Your task to perform on an android device: Open maps Image 0: 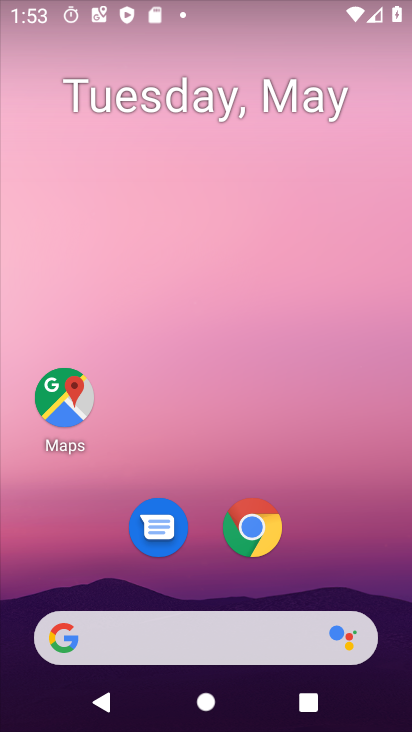
Step 0: press home button
Your task to perform on an android device: Open maps Image 1: 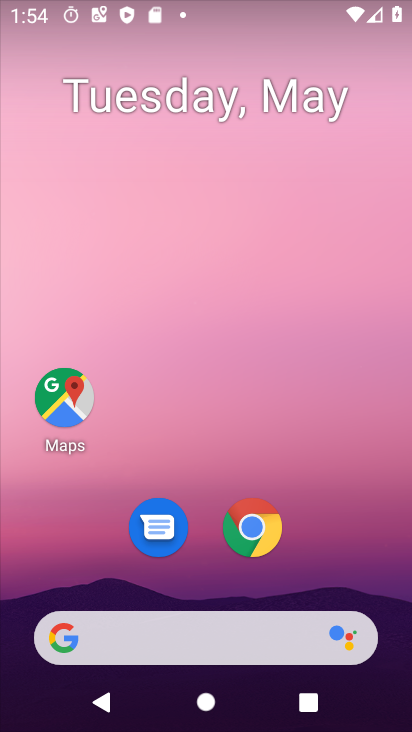
Step 1: drag from (269, 653) to (293, 209)
Your task to perform on an android device: Open maps Image 2: 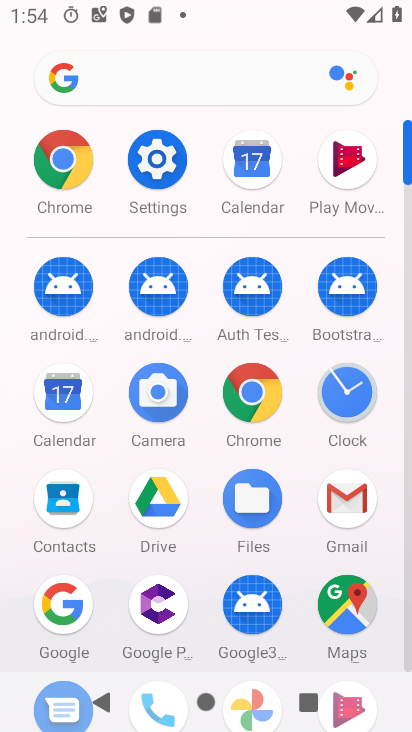
Step 2: click (349, 604)
Your task to perform on an android device: Open maps Image 3: 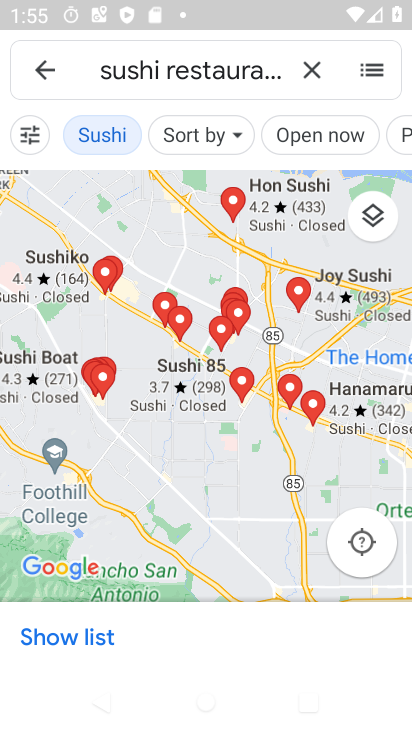
Step 3: click (140, 488)
Your task to perform on an android device: Open maps Image 4: 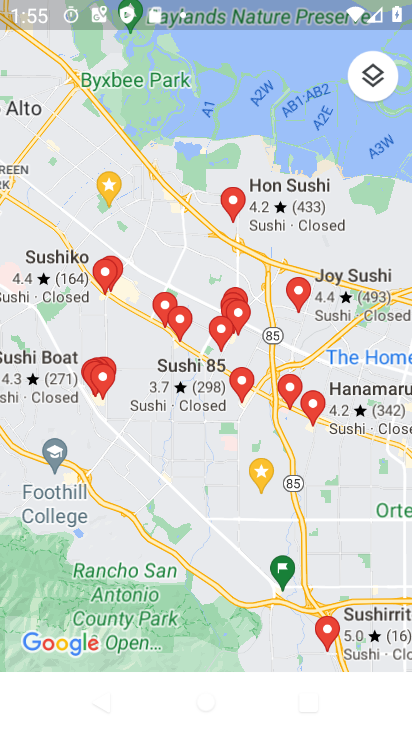
Step 4: click (28, 72)
Your task to perform on an android device: Open maps Image 5: 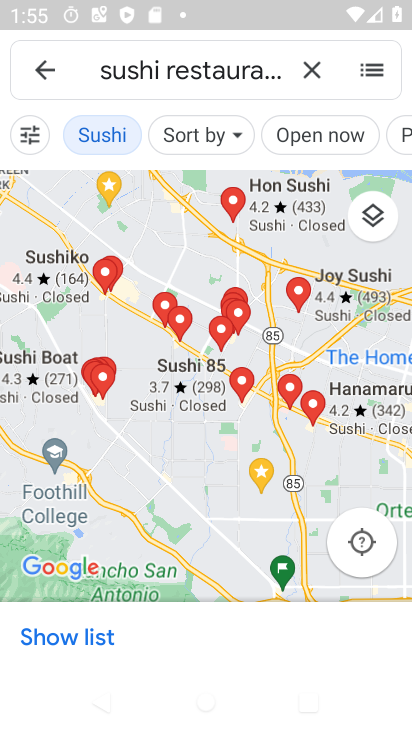
Step 5: click (42, 80)
Your task to perform on an android device: Open maps Image 6: 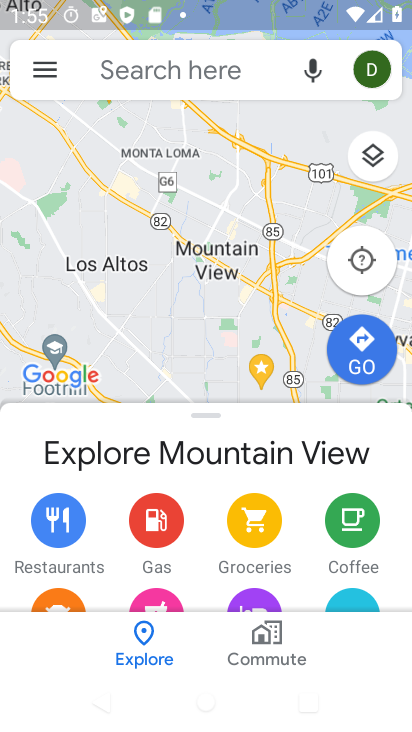
Step 6: task complete